Your task to perform on an android device: Check the weather Image 0: 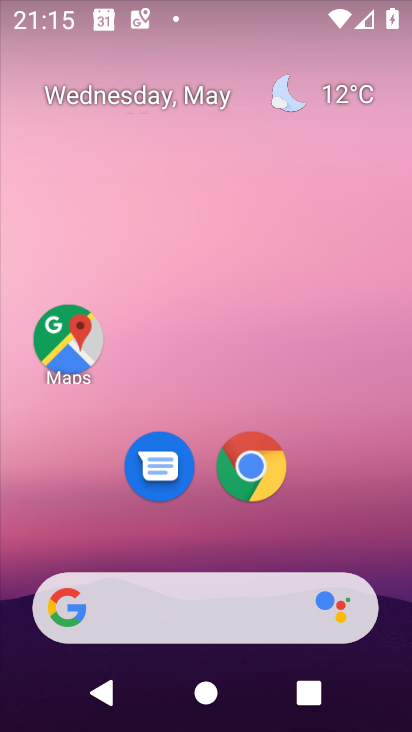
Step 0: click (342, 87)
Your task to perform on an android device: Check the weather Image 1: 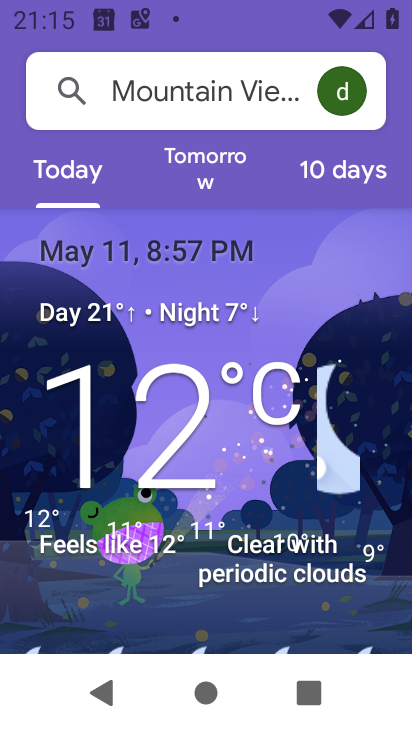
Step 1: task complete